Your task to perform on an android device: Open Google Chrome and open the bookmarks view Image 0: 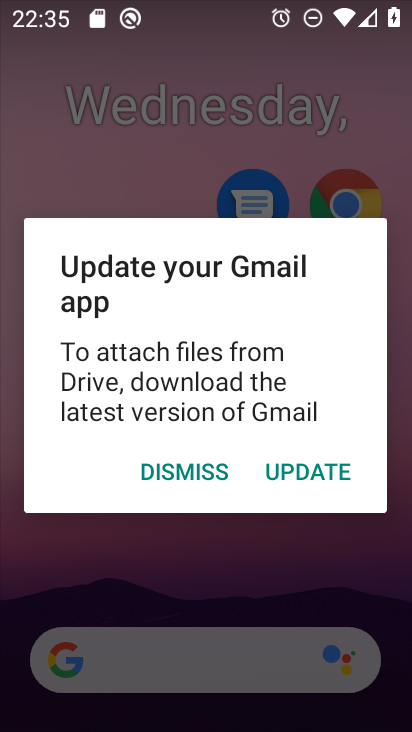
Step 0: press home button
Your task to perform on an android device: Open Google Chrome and open the bookmarks view Image 1: 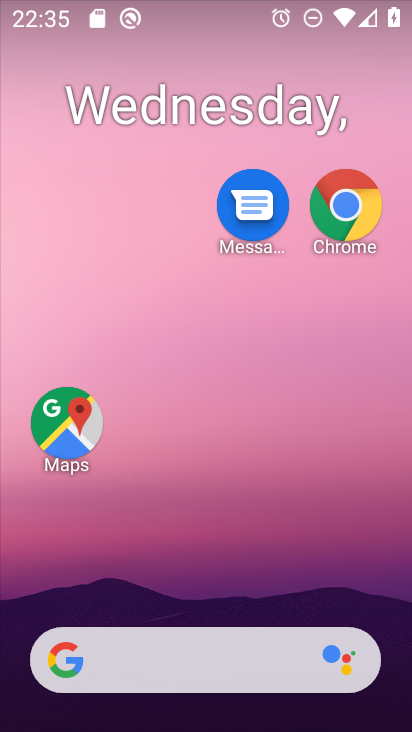
Step 1: click (362, 211)
Your task to perform on an android device: Open Google Chrome and open the bookmarks view Image 2: 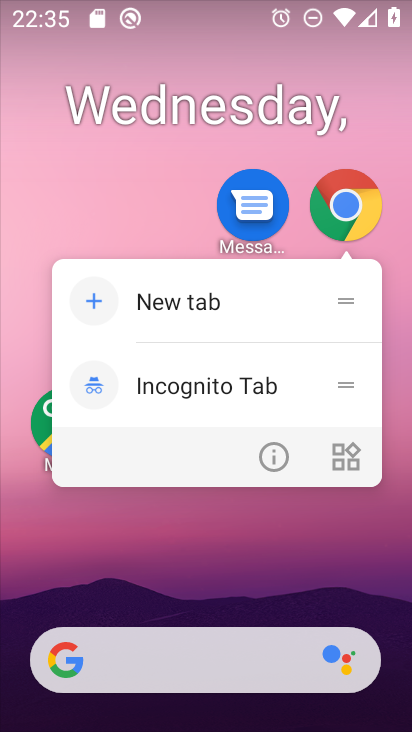
Step 2: click (273, 460)
Your task to perform on an android device: Open Google Chrome and open the bookmarks view Image 3: 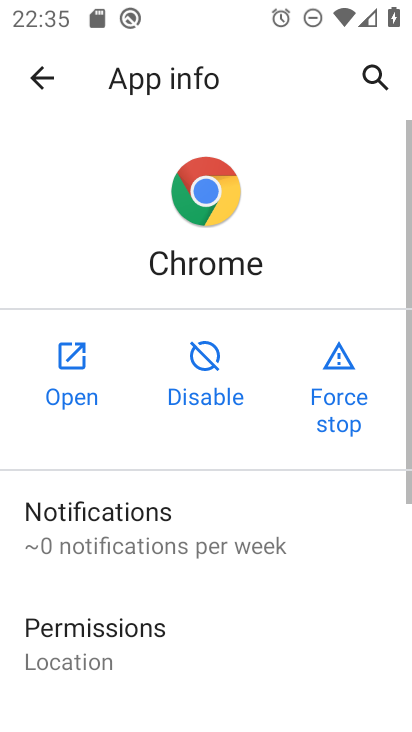
Step 3: click (76, 364)
Your task to perform on an android device: Open Google Chrome and open the bookmarks view Image 4: 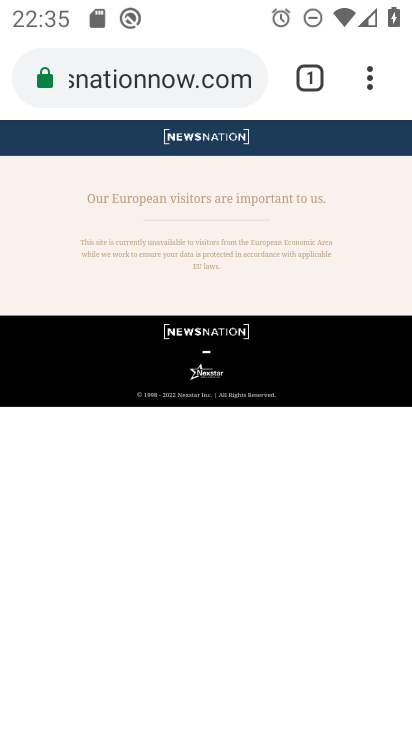
Step 4: task complete